Your task to perform on an android device: Show me productivity apps on the Play Store Image 0: 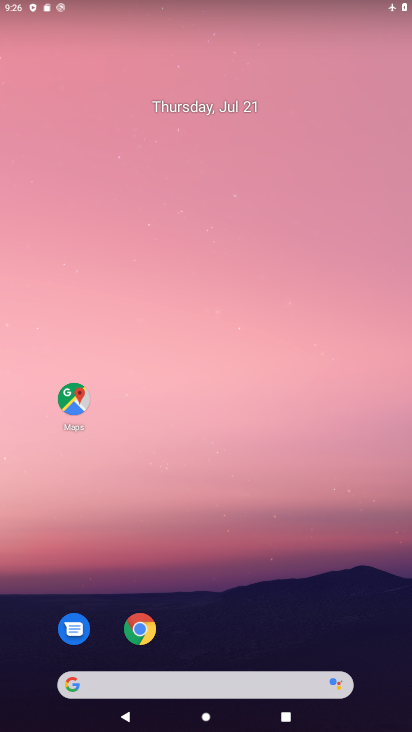
Step 0: drag from (168, 642) to (313, 99)
Your task to perform on an android device: Show me productivity apps on the Play Store Image 1: 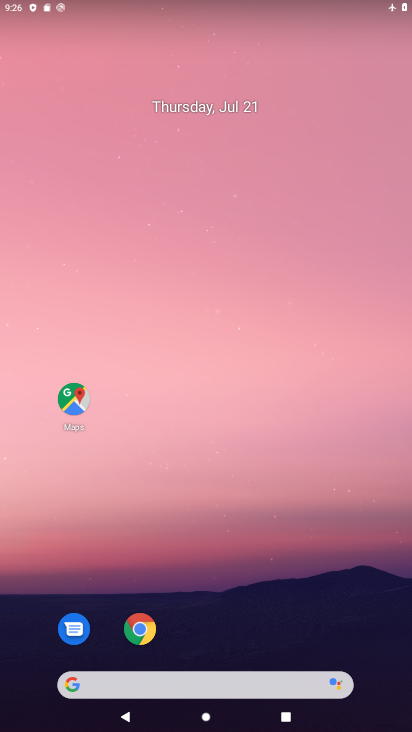
Step 1: drag from (260, 612) to (265, 323)
Your task to perform on an android device: Show me productivity apps on the Play Store Image 2: 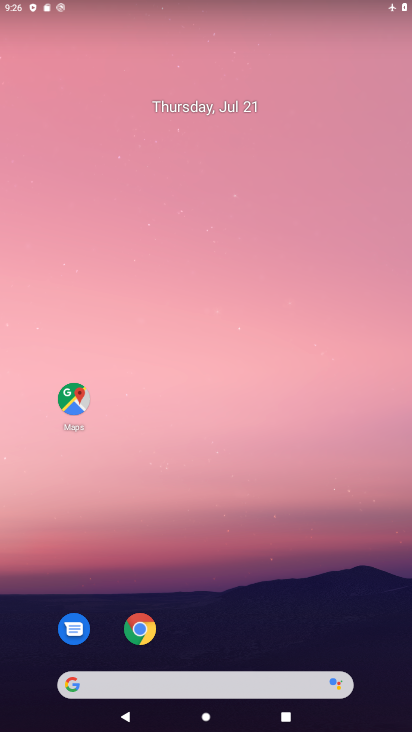
Step 2: drag from (275, 642) to (201, 117)
Your task to perform on an android device: Show me productivity apps on the Play Store Image 3: 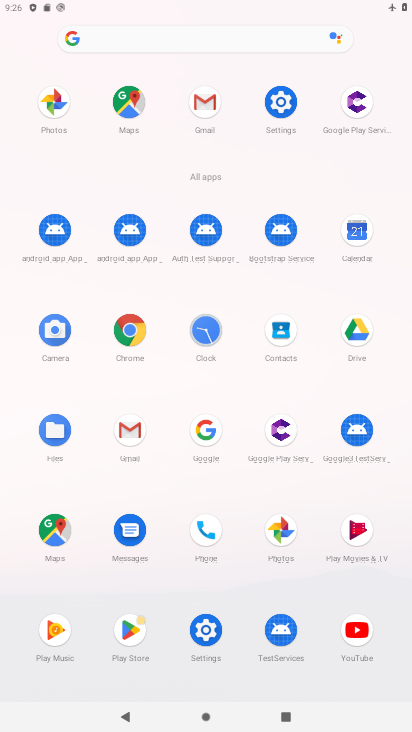
Step 3: click (115, 629)
Your task to perform on an android device: Show me productivity apps on the Play Store Image 4: 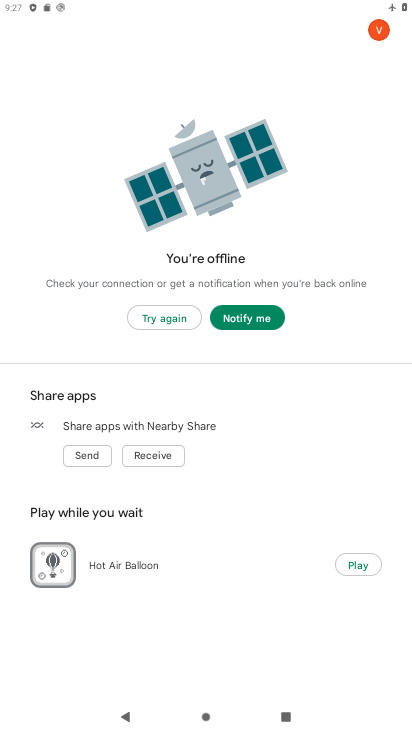
Step 4: drag from (163, 10) to (395, 365)
Your task to perform on an android device: Show me productivity apps on the Play Store Image 5: 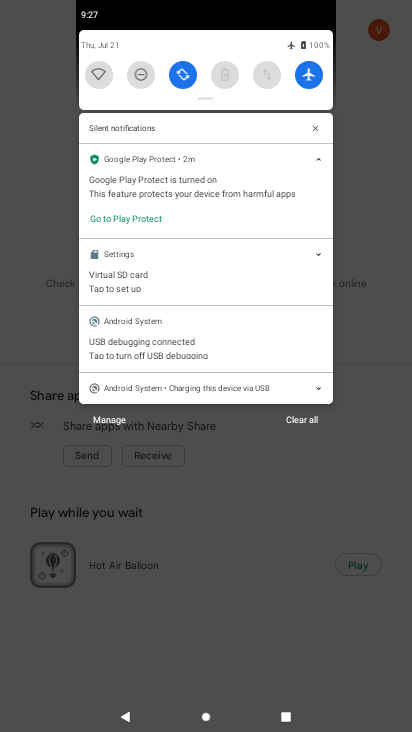
Step 5: click (310, 75)
Your task to perform on an android device: Show me productivity apps on the Play Store Image 6: 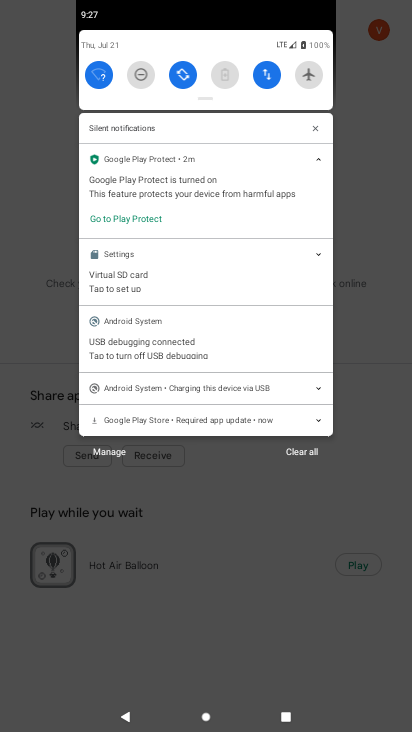
Step 6: task complete